Your task to perform on an android device: allow notifications from all sites in the chrome app Image 0: 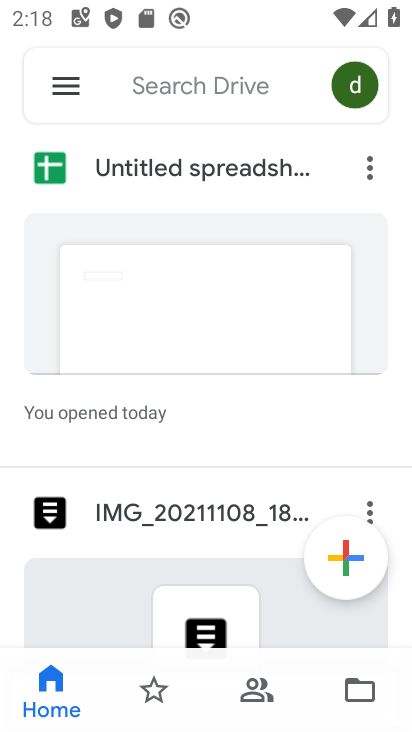
Step 0: press home button
Your task to perform on an android device: allow notifications from all sites in the chrome app Image 1: 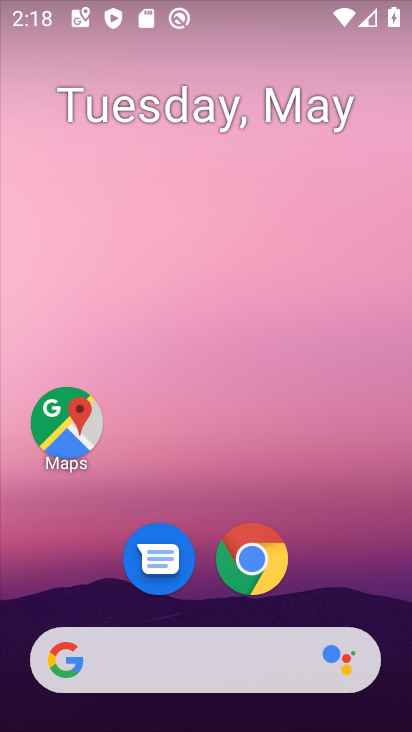
Step 1: drag from (210, 654) to (348, 315)
Your task to perform on an android device: allow notifications from all sites in the chrome app Image 2: 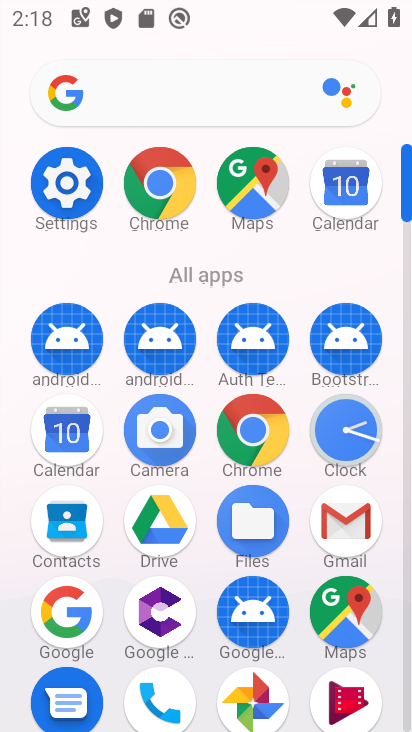
Step 2: click (163, 196)
Your task to perform on an android device: allow notifications from all sites in the chrome app Image 3: 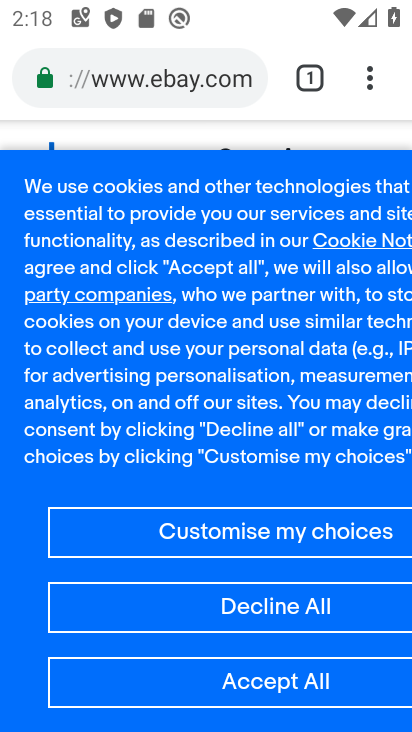
Step 3: drag from (370, 85) to (200, 624)
Your task to perform on an android device: allow notifications from all sites in the chrome app Image 4: 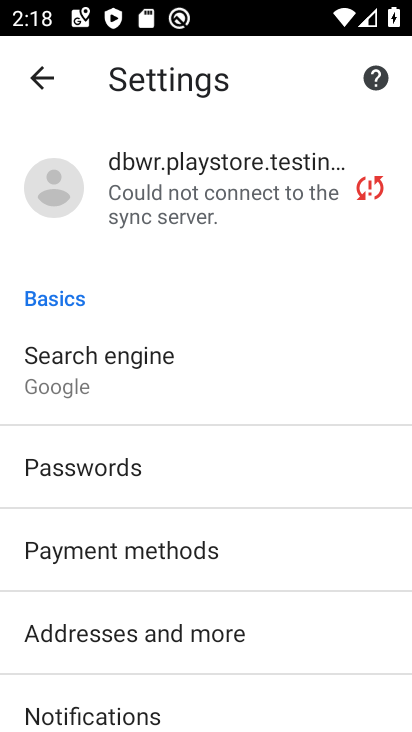
Step 4: drag from (195, 589) to (362, 322)
Your task to perform on an android device: allow notifications from all sites in the chrome app Image 5: 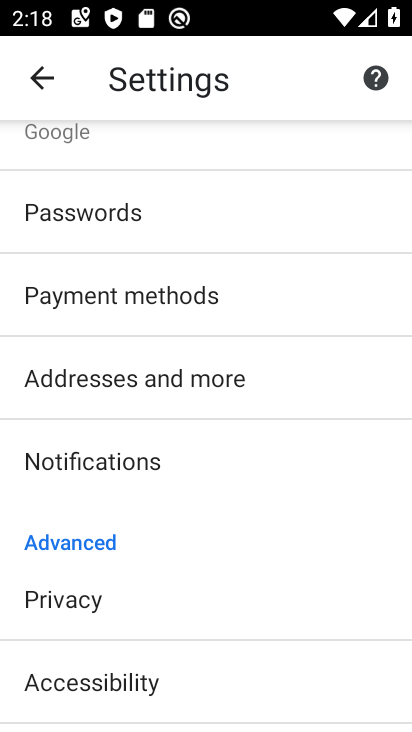
Step 5: drag from (129, 598) to (351, 288)
Your task to perform on an android device: allow notifications from all sites in the chrome app Image 6: 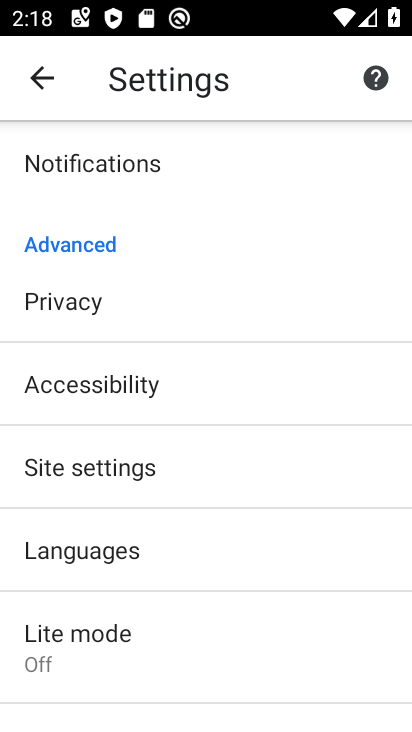
Step 6: click (103, 472)
Your task to perform on an android device: allow notifications from all sites in the chrome app Image 7: 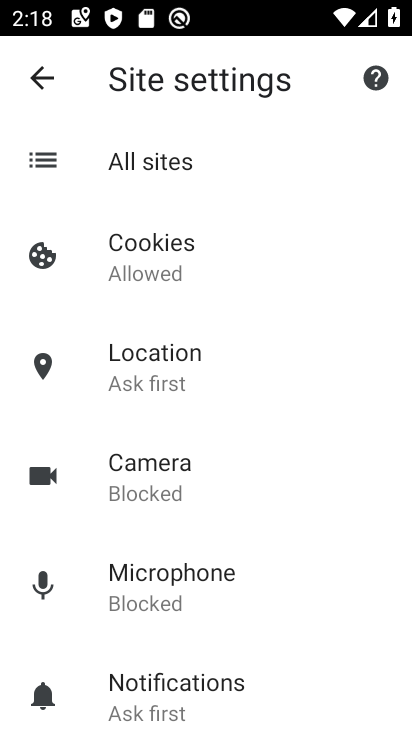
Step 7: click (161, 683)
Your task to perform on an android device: allow notifications from all sites in the chrome app Image 8: 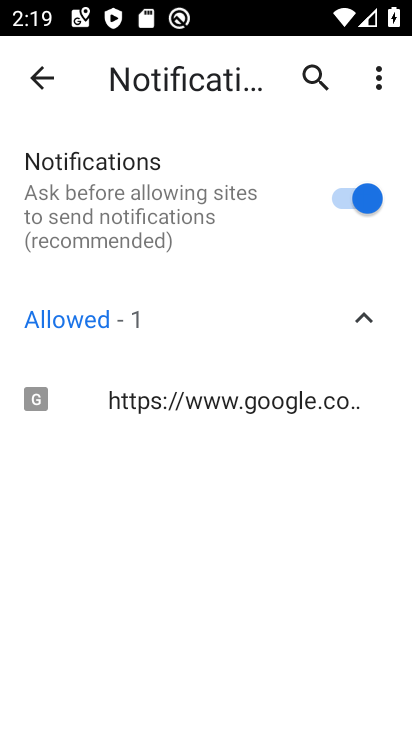
Step 8: task complete